Your task to perform on an android device: Find coffee shops on Maps Image 0: 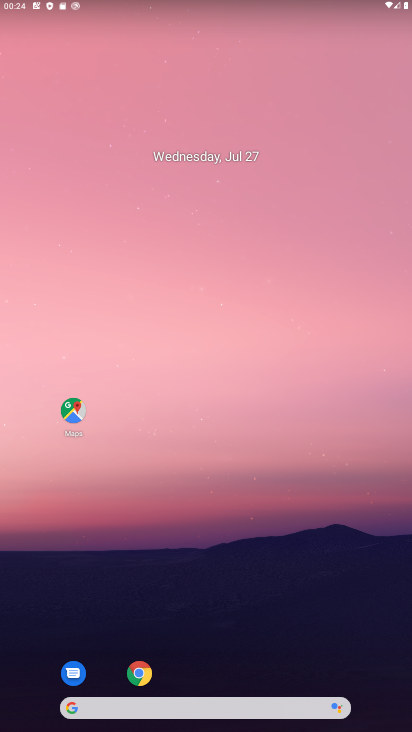
Step 0: drag from (241, 374) to (268, 2)
Your task to perform on an android device: Find coffee shops on Maps Image 1: 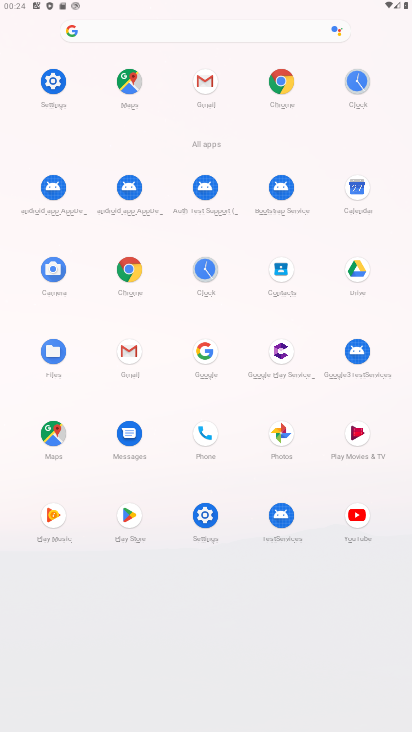
Step 1: click (47, 428)
Your task to perform on an android device: Find coffee shops on Maps Image 2: 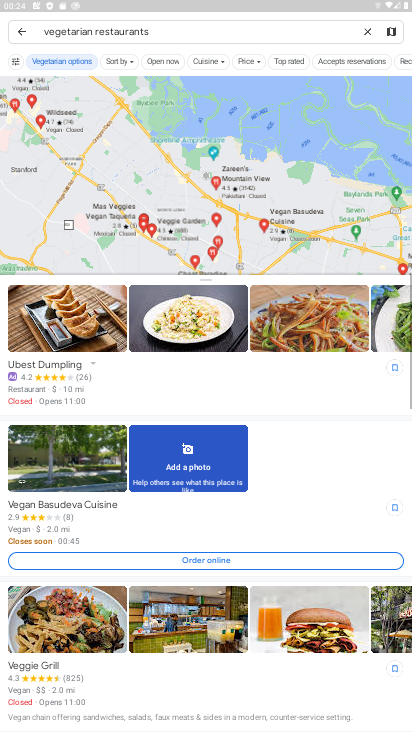
Step 2: click (369, 32)
Your task to perform on an android device: Find coffee shops on Maps Image 3: 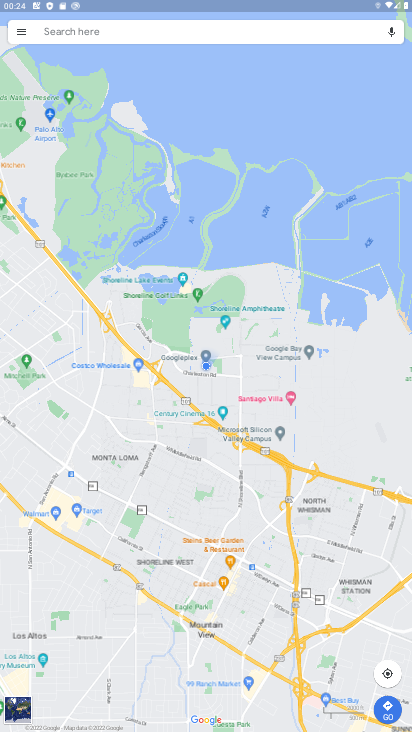
Step 3: click (115, 32)
Your task to perform on an android device: Find coffee shops on Maps Image 4: 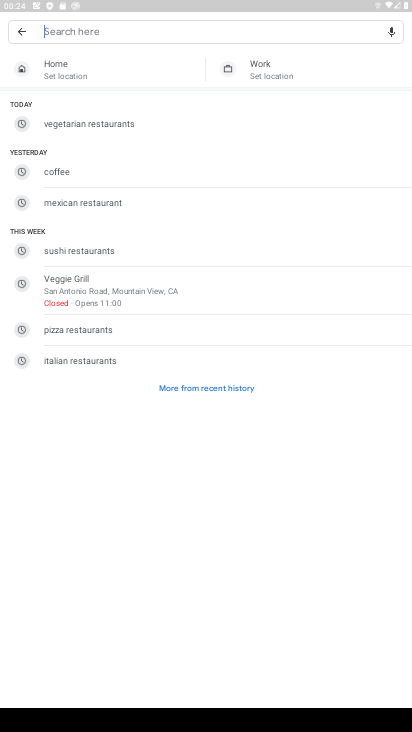
Step 4: type "coffee shops"
Your task to perform on an android device: Find coffee shops on Maps Image 5: 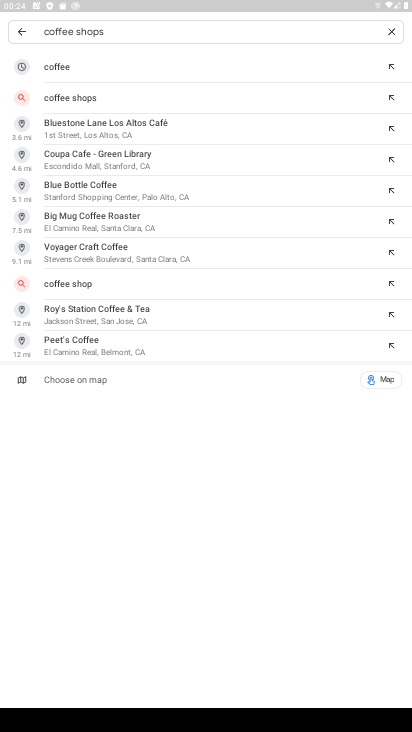
Step 5: click (89, 100)
Your task to perform on an android device: Find coffee shops on Maps Image 6: 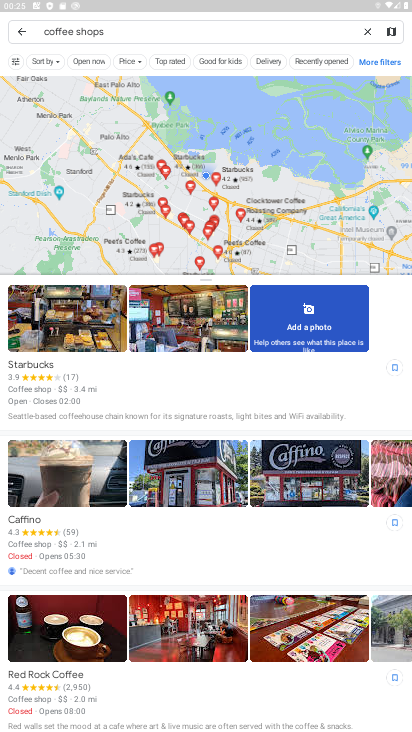
Step 6: task complete